Your task to perform on an android device: Go to Reddit.com Image 0: 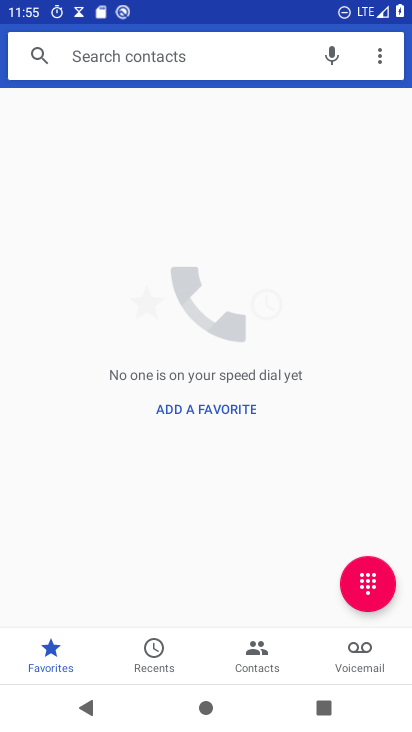
Step 0: press home button
Your task to perform on an android device: Go to Reddit.com Image 1: 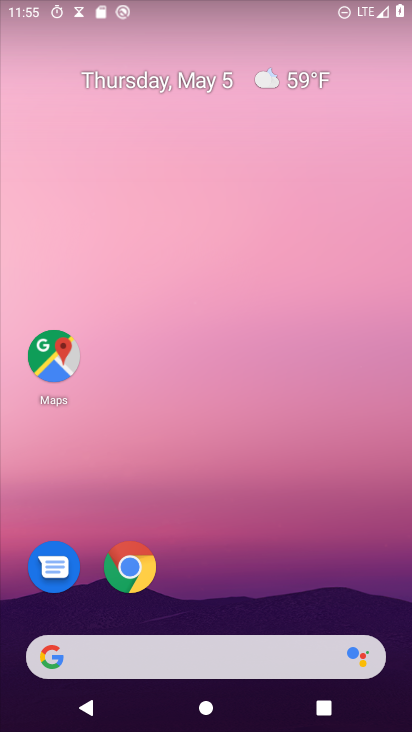
Step 1: click (138, 568)
Your task to perform on an android device: Go to Reddit.com Image 2: 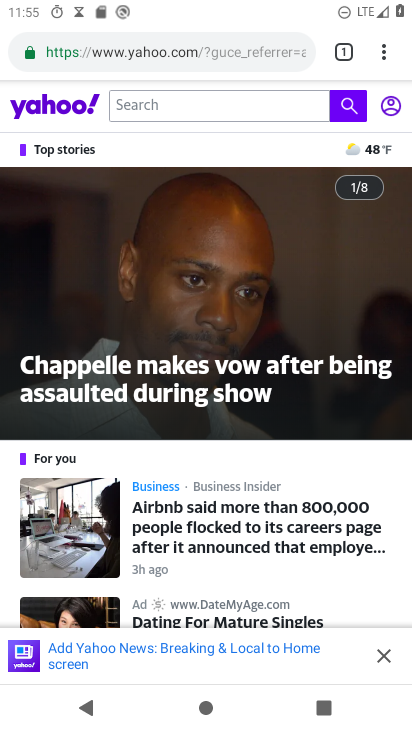
Step 2: click (119, 55)
Your task to perform on an android device: Go to Reddit.com Image 3: 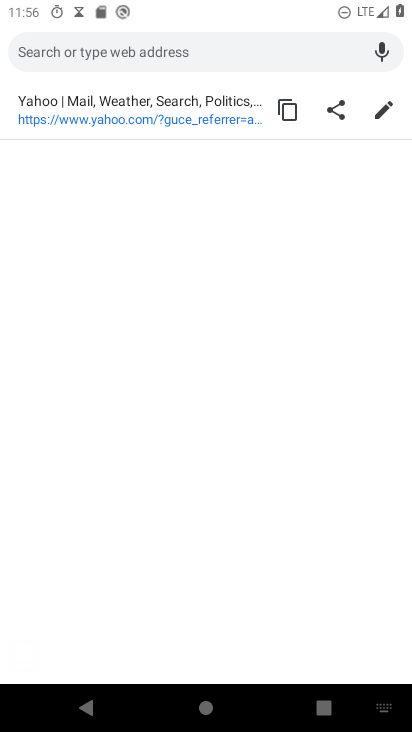
Step 3: type "reddit.com"
Your task to perform on an android device: Go to Reddit.com Image 4: 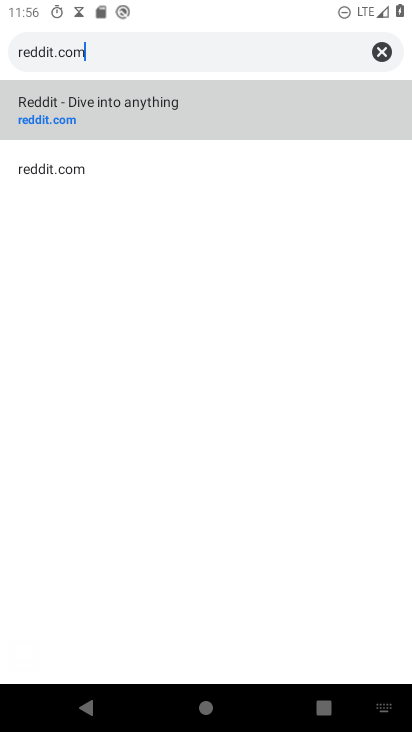
Step 4: click (51, 171)
Your task to perform on an android device: Go to Reddit.com Image 5: 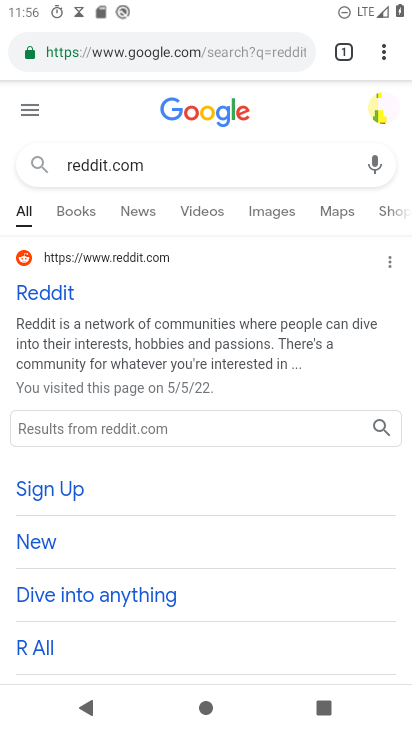
Step 5: click (20, 299)
Your task to perform on an android device: Go to Reddit.com Image 6: 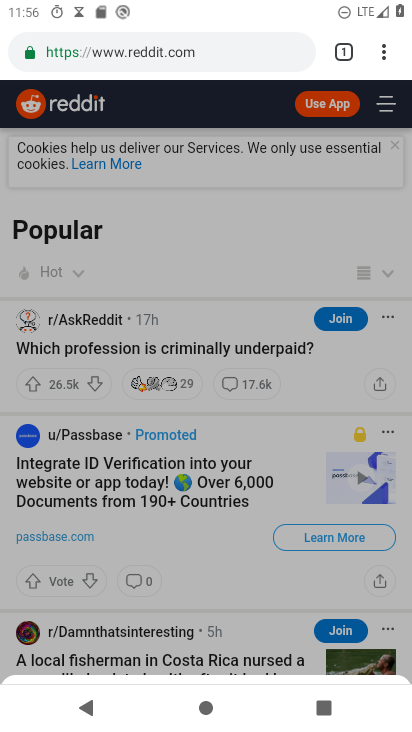
Step 6: task complete